Your task to perform on an android device: find which apps use the phone's location Image 0: 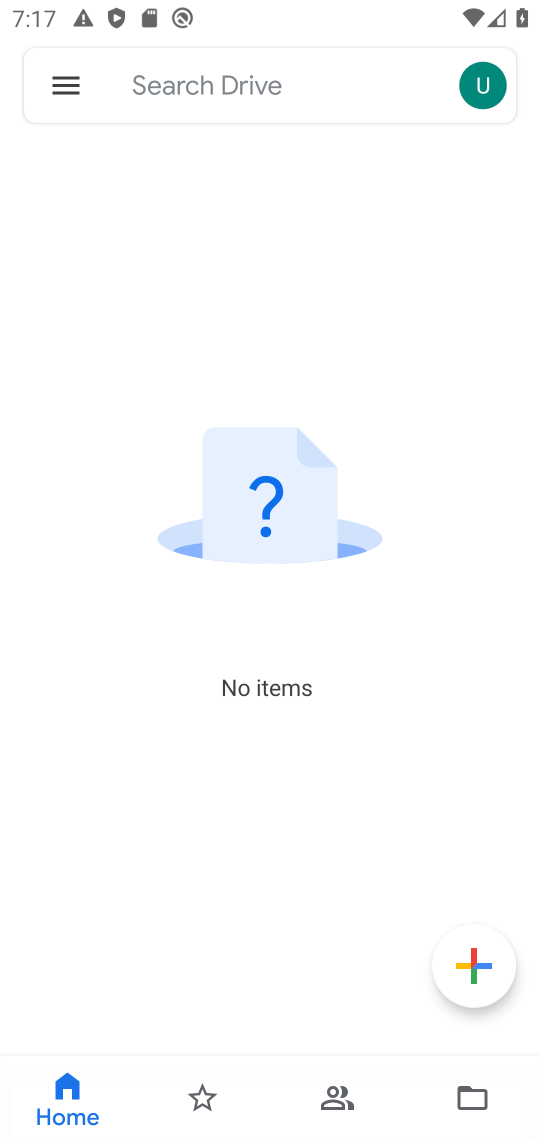
Step 0: press home button
Your task to perform on an android device: find which apps use the phone's location Image 1: 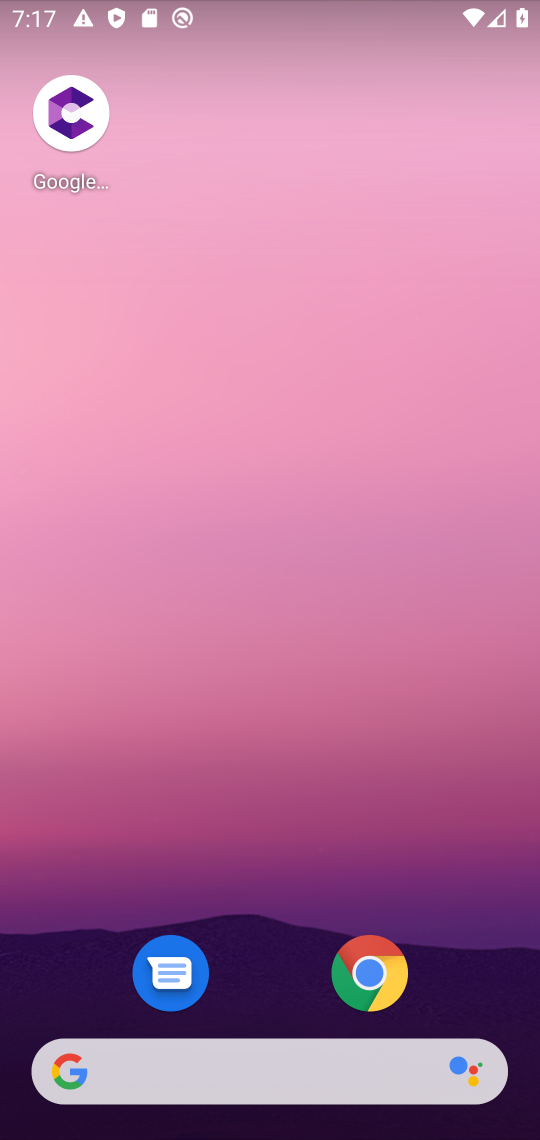
Step 1: drag from (254, 984) to (211, 122)
Your task to perform on an android device: find which apps use the phone's location Image 2: 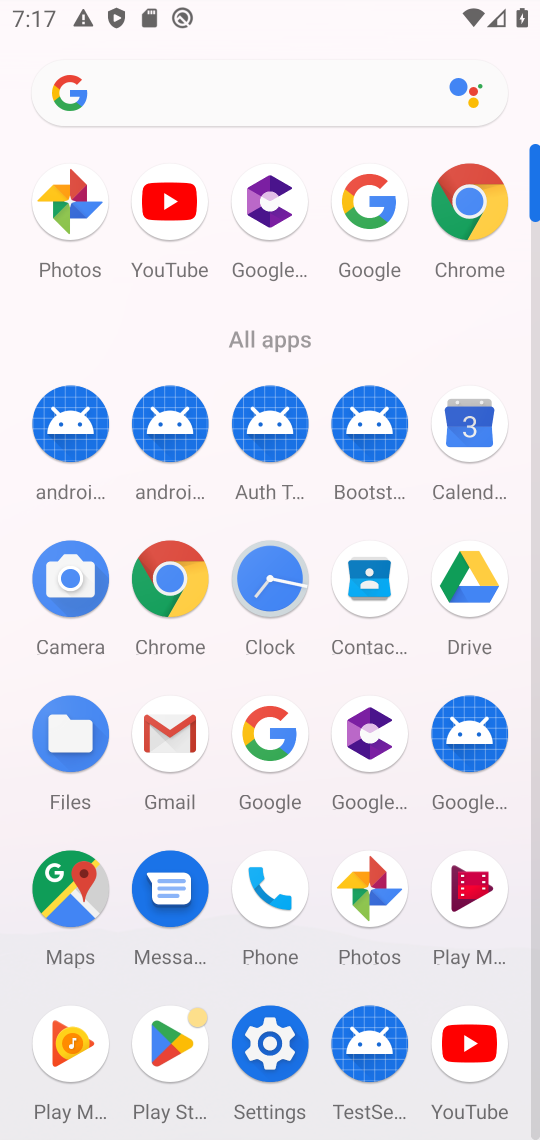
Step 2: click (258, 1039)
Your task to perform on an android device: find which apps use the phone's location Image 3: 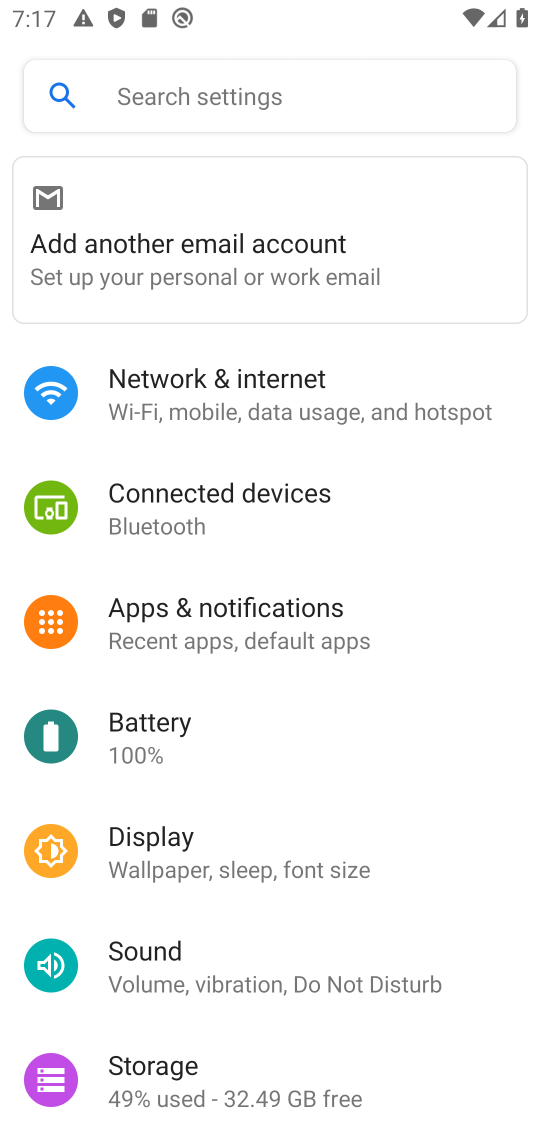
Step 3: drag from (263, 895) to (263, 551)
Your task to perform on an android device: find which apps use the phone's location Image 4: 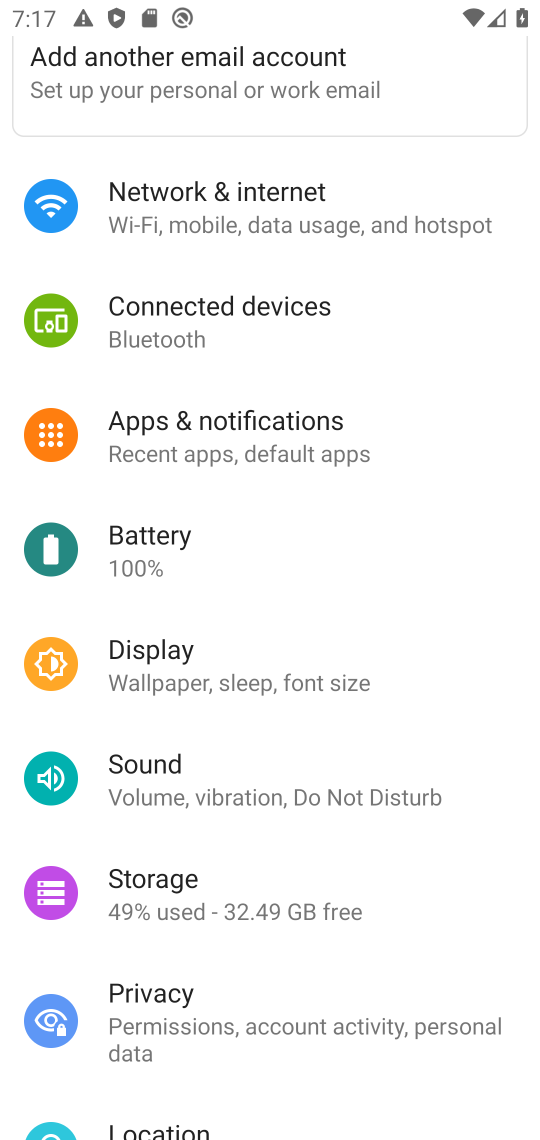
Step 4: click (169, 1126)
Your task to perform on an android device: find which apps use the phone's location Image 5: 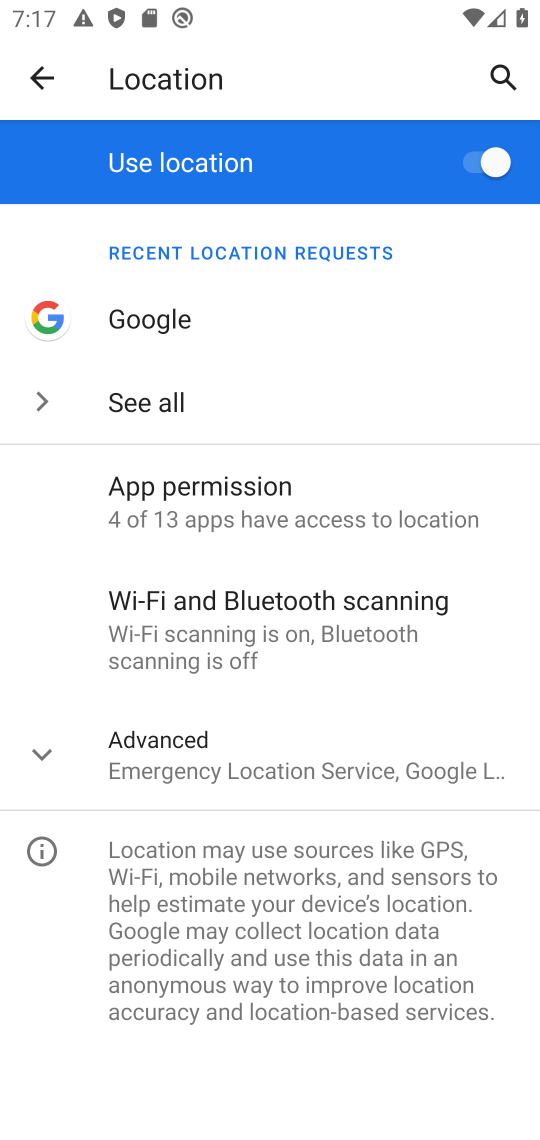
Step 5: click (197, 495)
Your task to perform on an android device: find which apps use the phone's location Image 6: 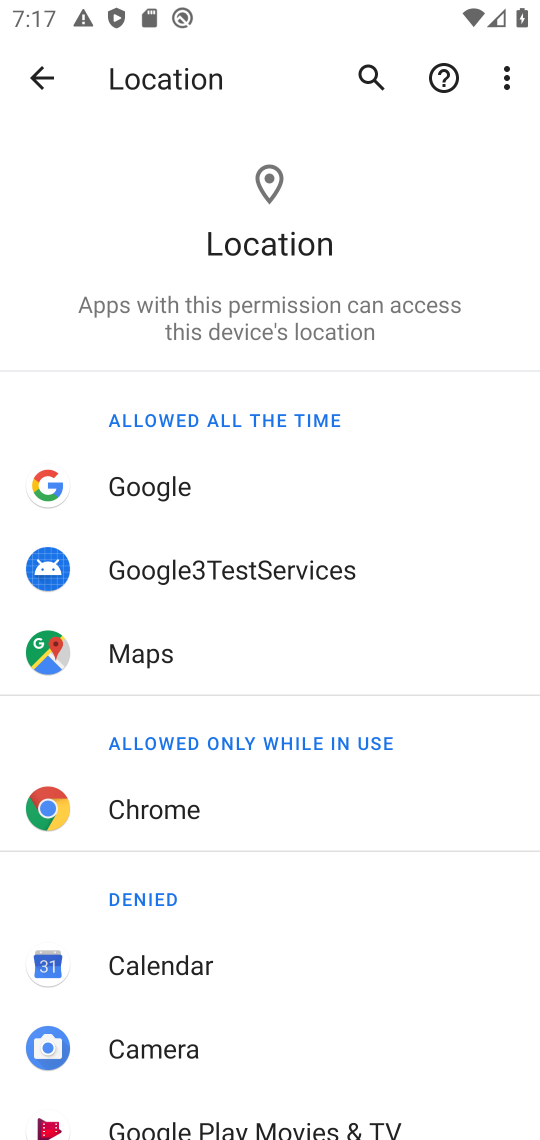
Step 6: task complete